Your task to perform on an android device: turn on improve location accuracy Image 0: 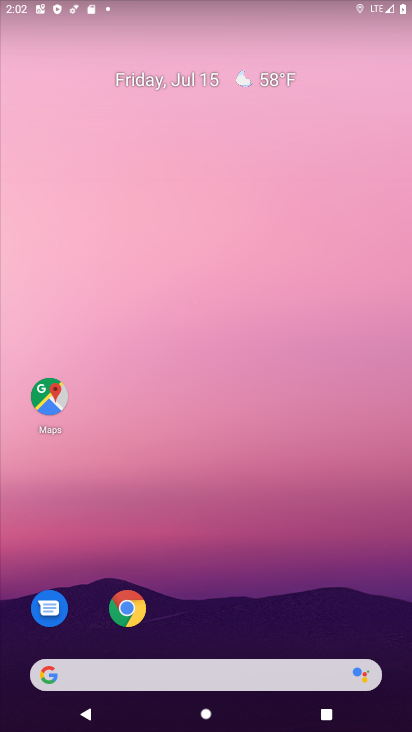
Step 0: drag from (266, 616) to (255, 68)
Your task to perform on an android device: turn on improve location accuracy Image 1: 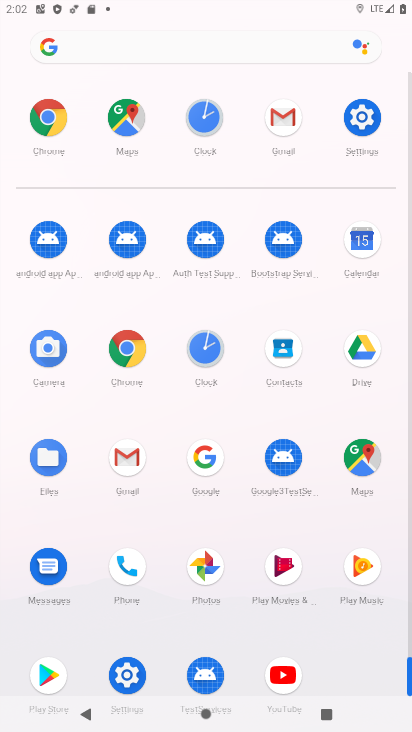
Step 1: click (130, 677)
Your task to perform on an android device: turn on improve location accuracy Image 2: 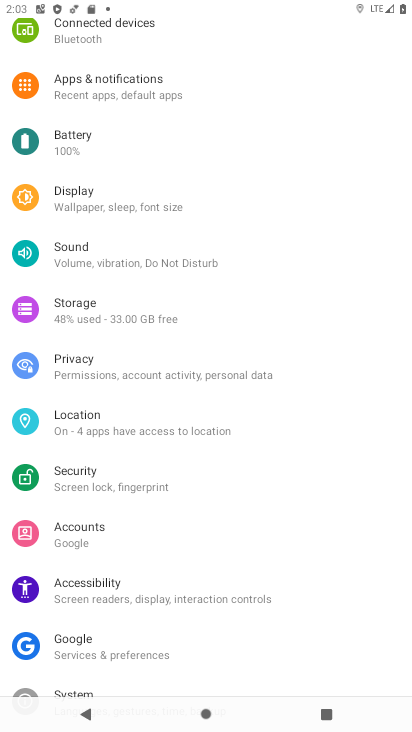
Step 2: click (101, 428)
Your task to perform on an android device: turn on improve location accuracy Image 3: 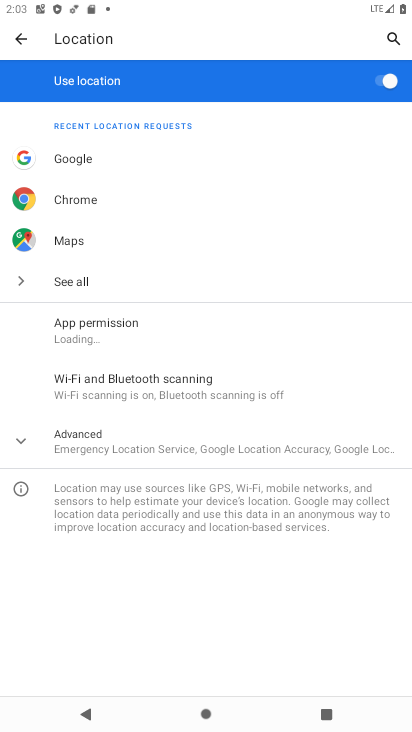
Step 3: click (106, 436)
Your task to perform on an android device: turn on improve location accuracy Image 4: 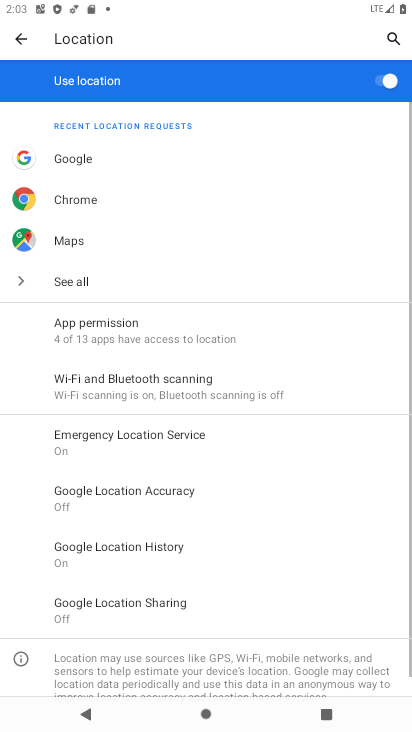
Step 4: click (125, 497)
Your task to perform on an android device: turn on improve location accuracy Image 5: 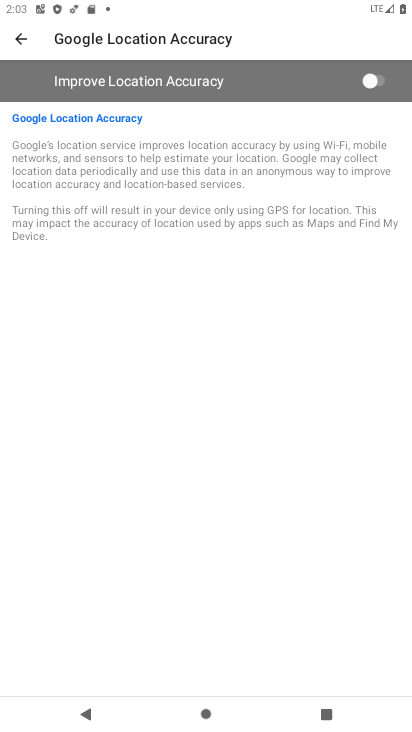
Step 5: click (194, 93)
Your task to perform on an android device: turn on improve location accuracy Image 6: 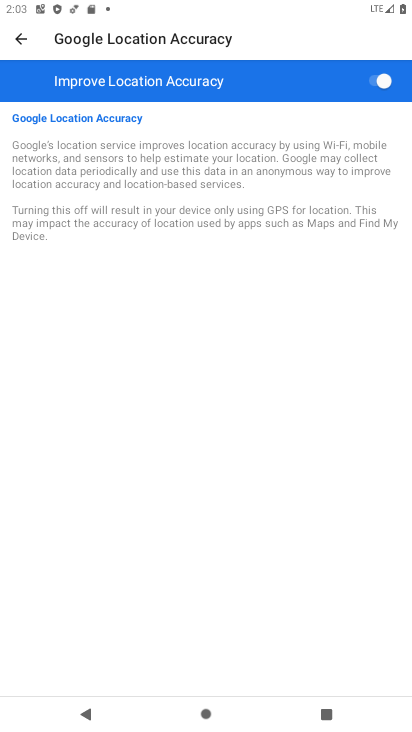
Step 6: task complete